Your task to perform on an android device: Go to Wikipedia Image 0: 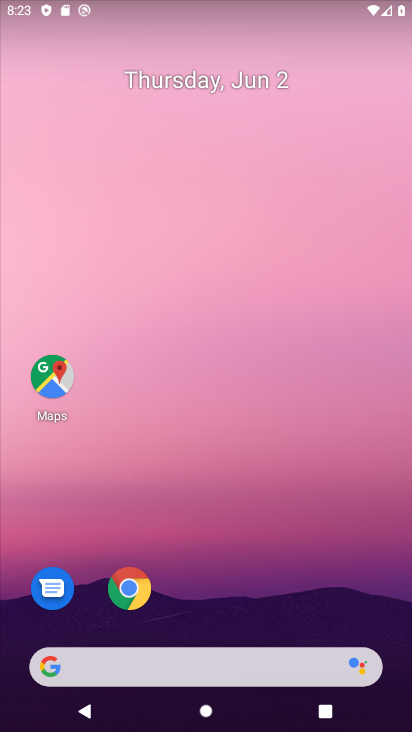
Step 0: click (257, 600)
Your task to perform on an android device: Go to Wikipedia Image 1: 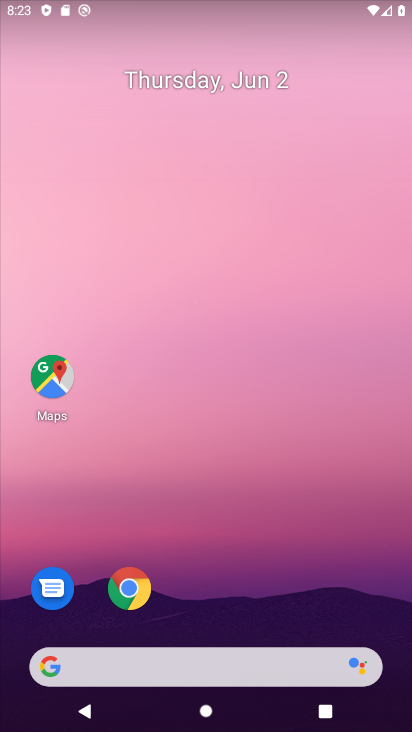
Step 1: click (140, 590)
Your task to perform on an android device: Go to Wikipedia Image 2: 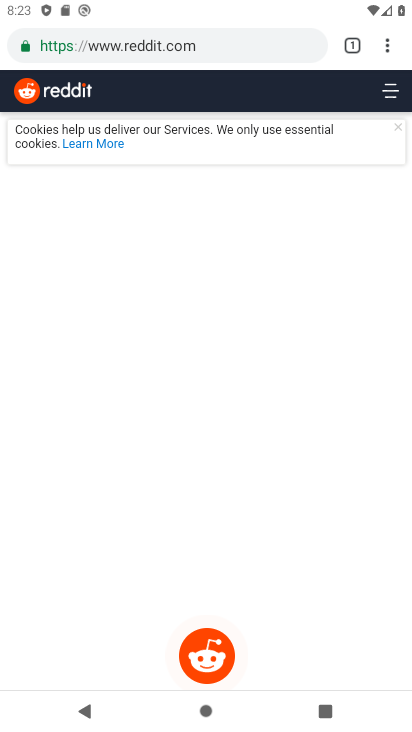
Step 2: click (287, 39)
Your task to perform on an android device: Go to Wikipedia Image 3: 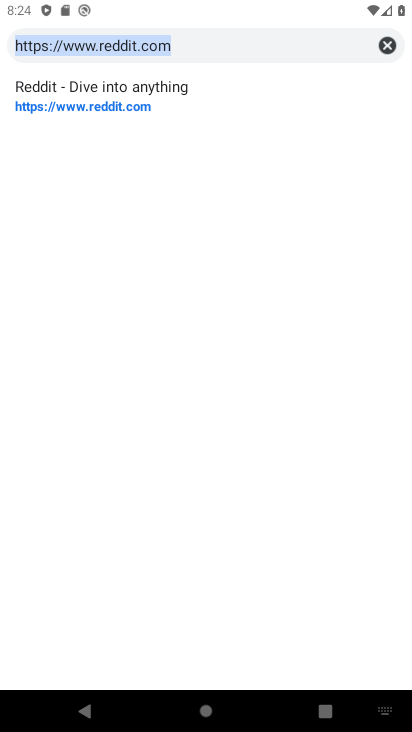
Step 3: type "wikipedia"
Your task to perform on an android device: Go to Wikipedia Image 4: 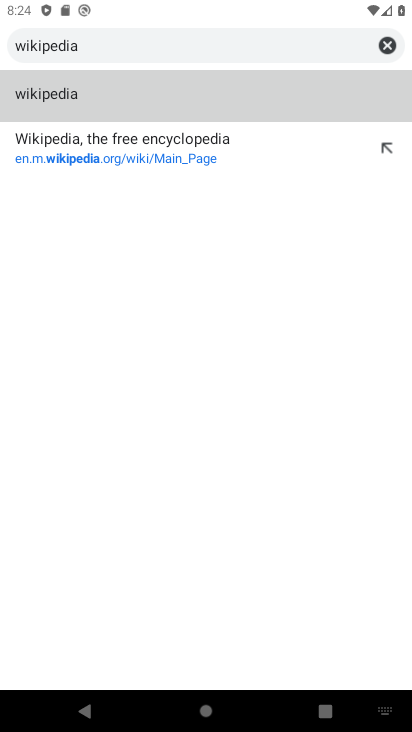
Step 4: click (191, 138)
Your task to perform on an android device: Go to Wikipedia Image 5: 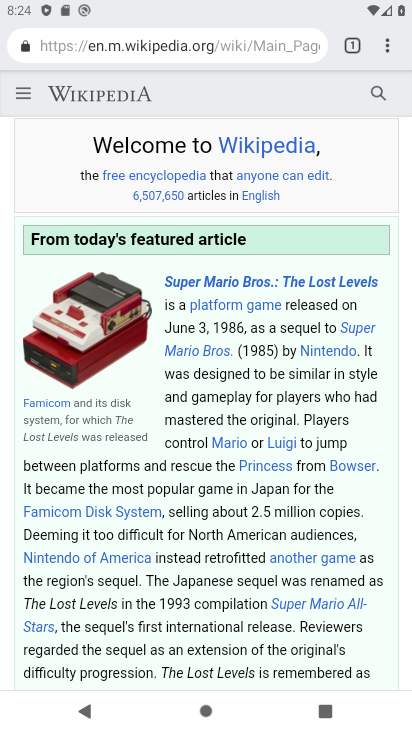
Step 5: task complete